Your task to perform on an android device: What is the news today? Image 0: 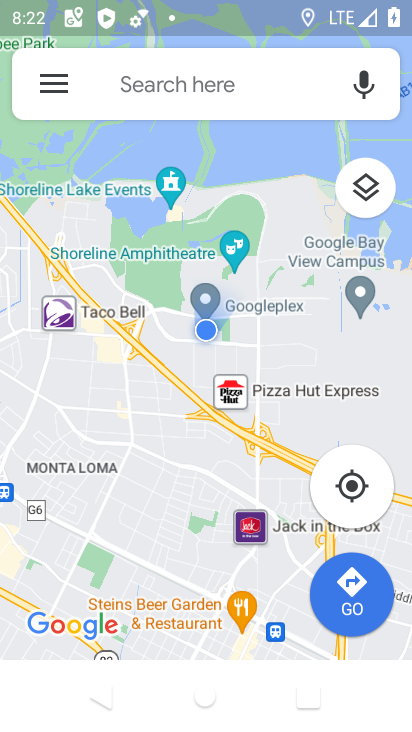
Step 0: press back button
Your task to perform on an android device: What is the news today? Image 1: 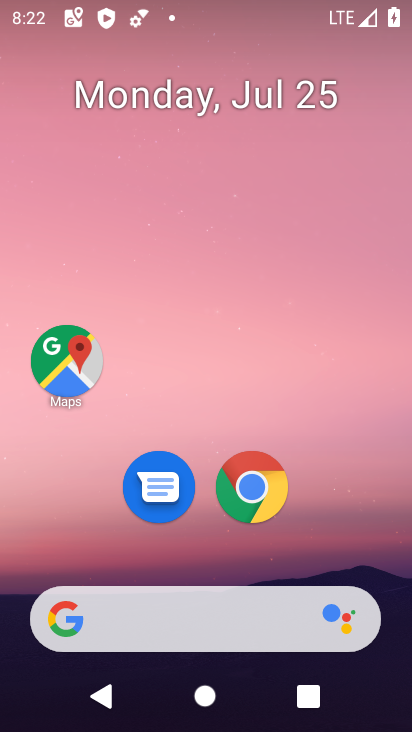
Step 1: click (175, 617)
Your task to perform on an android device: What is the news today? Image 2: 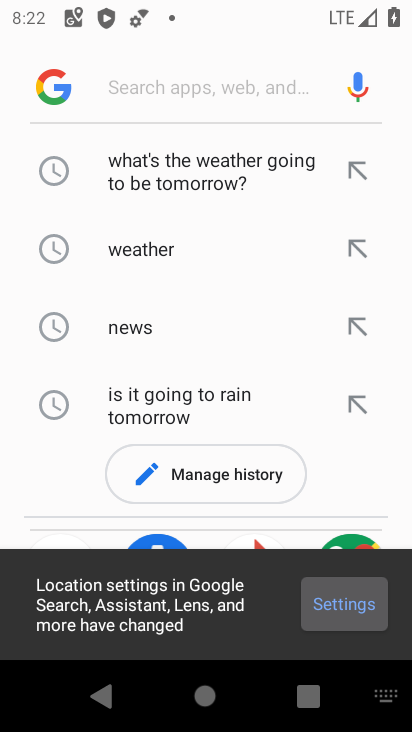
Step 2: click (152, 319)
Your task to perform on an android device: What is the news today? Image 3: 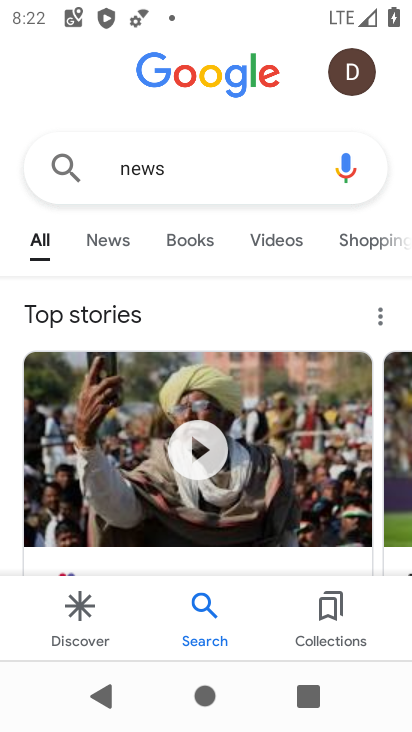
Step 3: task complete